Your task to perform on an android device: Search for seafood restaurants on Google Maps Image 0: 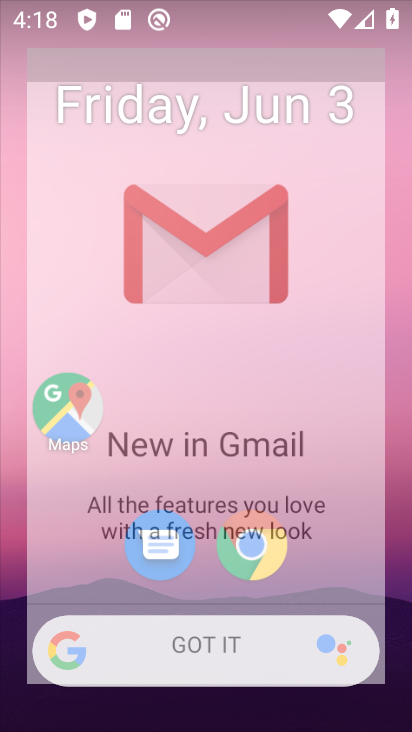
Step 0: drag from (60, 607) to (243, 169)
Your task to perform on an android device: Search for seafood restaurants on Google Maps Image 1: 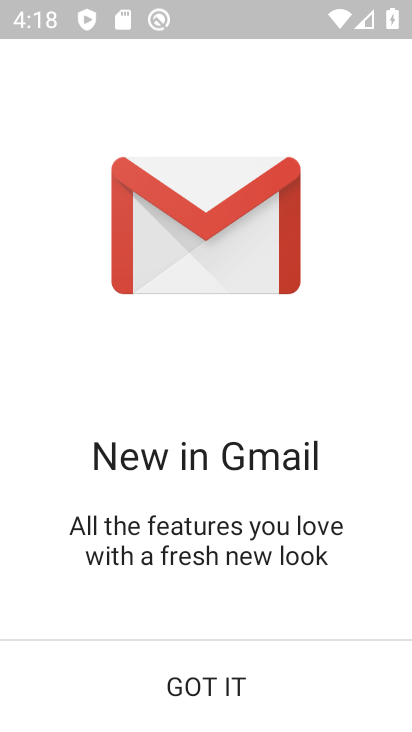
Step 1: press home button
Your task to perform on an android device: Search for seafood restaurants on Google Maps Image 2: 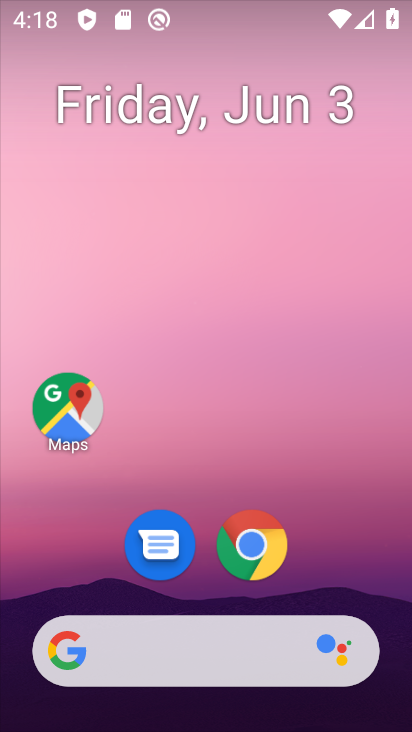
Step 2: click (31, 423)
Your task to perform on an android device: Search for seafood restaurants on Google Maps Image 3: 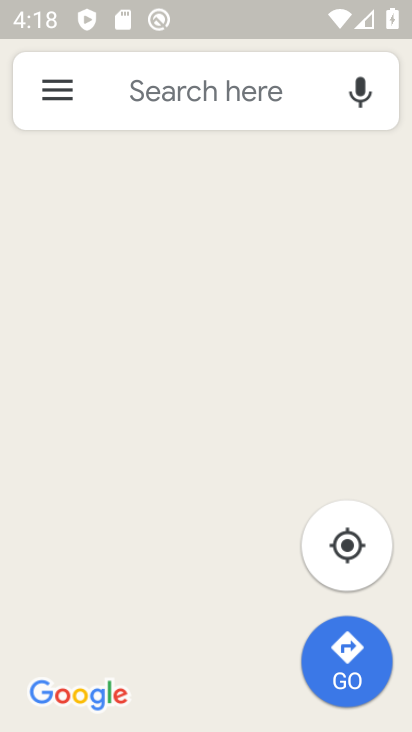
Step 3: click (214, 122)
Your task to perform on an android device: Search for seafood restaurants on Google Maps Image 4: 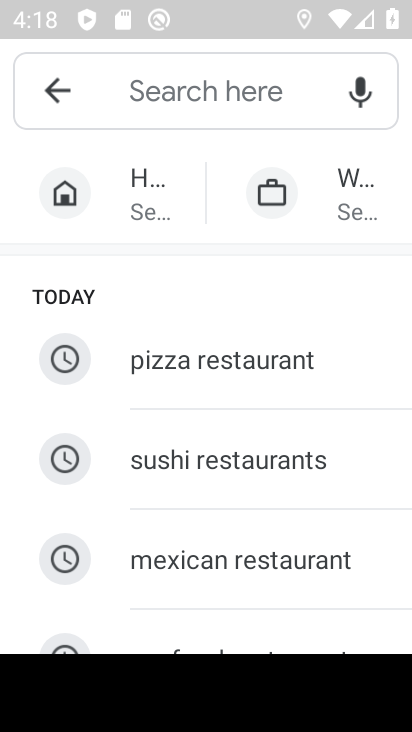
Step 4: type "Seafood restaurants"
Your task to perform on an android device: Search for seafood restaurants on Google Maps Image 5: 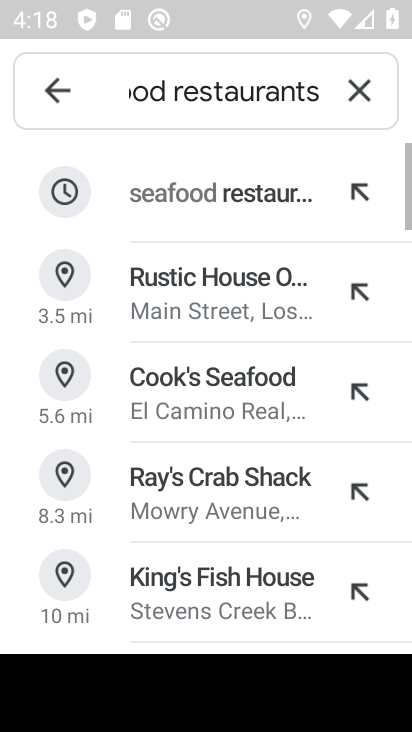
Step 5: click (240, 199)
Your task to perform on an android device: Search for seafood restaurants on Google Maps Image 6: 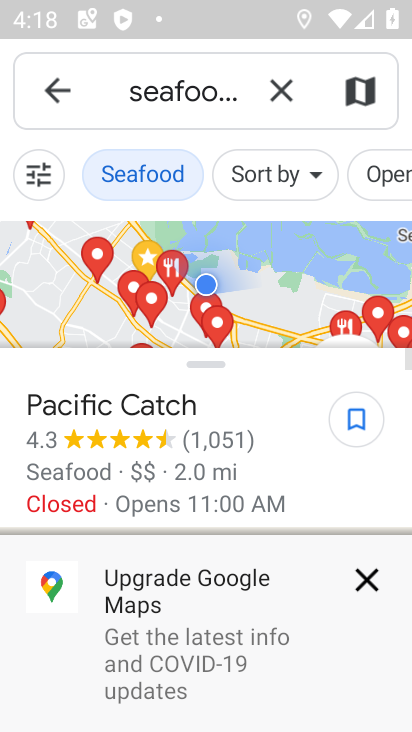
Step 6: click (374, 575)
Your task to perform on an android device: Search for seafood restaurants on Google Maps Image 7: 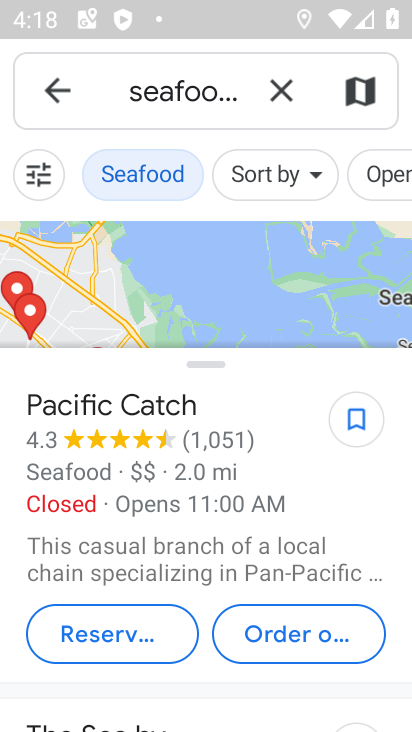
Step 7: task complete